Your task to perform on an android device: delete the emails in spam in the gmail app Image 0: 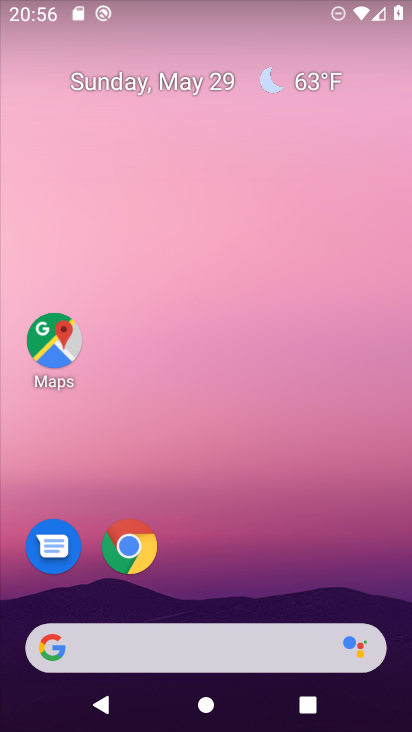
Step 0: press home button
Your task to perform on an android device: delete the emails in spam in the gmail app Image 1: 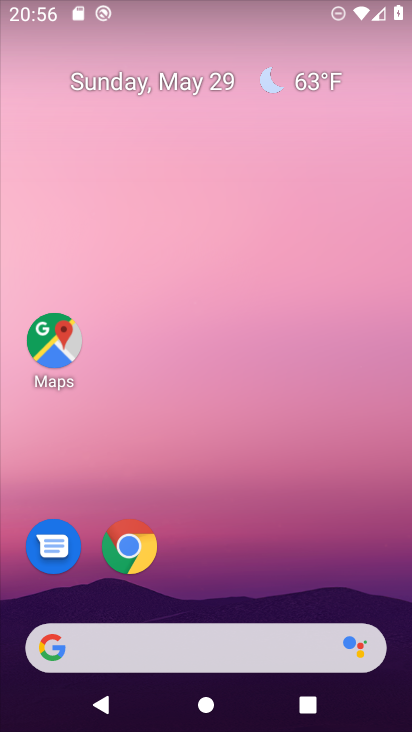
Step 1: drag from (177, 629) to (226, 9)
Your task to perform on an android device: delete the emails in spam in the gmail app Image 2: 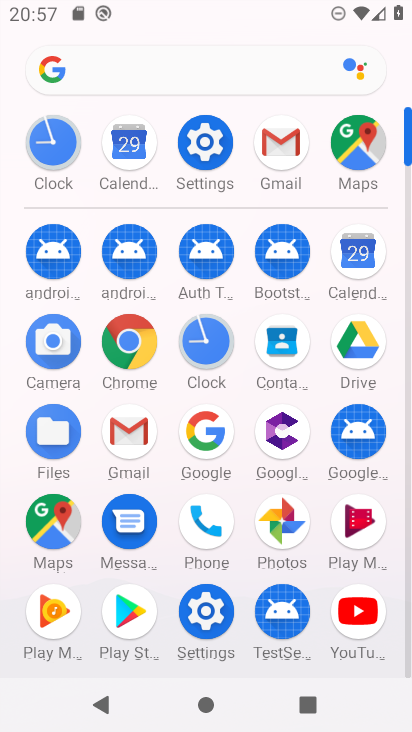
Step 2: click (276, 159)
Your task to perform on an android device: delete the emails in spam in the gmail app Image 3: 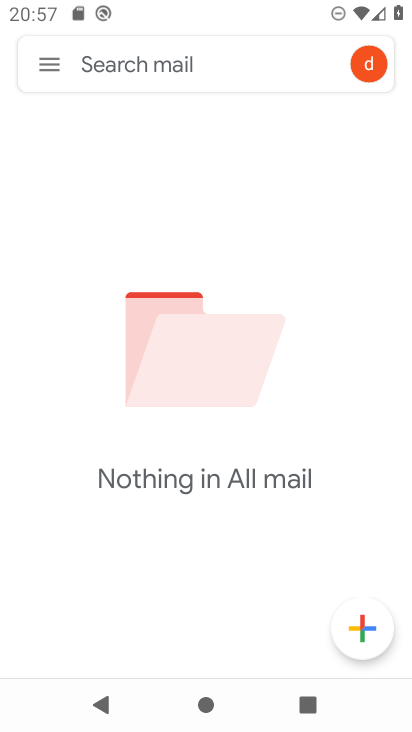
Step 3: click (58, 67)
Your task to perform on an android device: delete the emails in spam in the gmail app Image 4: 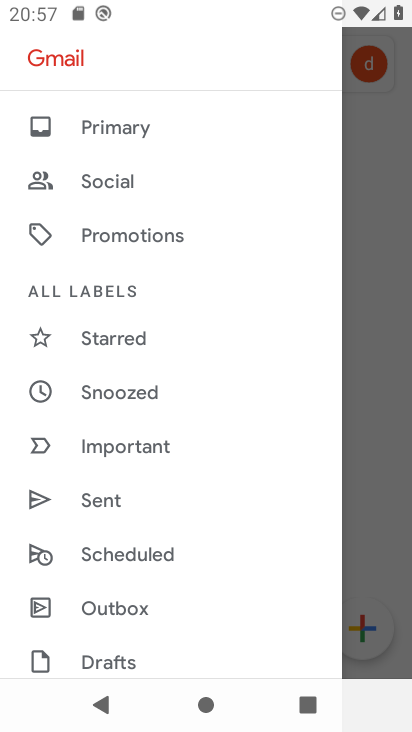
Step 4: drag from (226, 463) to (270, 146)
Your task to perform on an android device: delete the emails in spam in the gmail app Image 5: 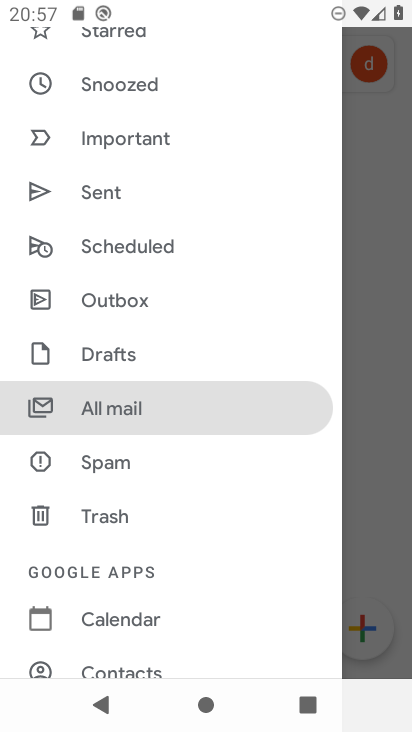
Step 5: click (127, 457)
Your task to perform on an android device: delete the emails in spam in the gmail app Image 6: 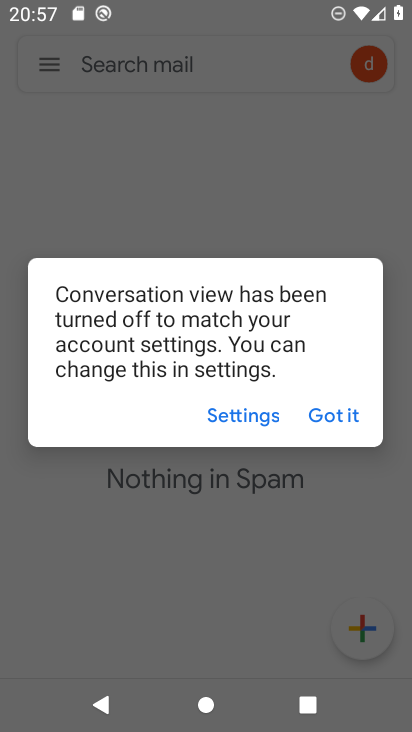
Step 6: click (330, 414)
Your task to perform on an android device: delete the emails in spam in the gmail app Image 7: 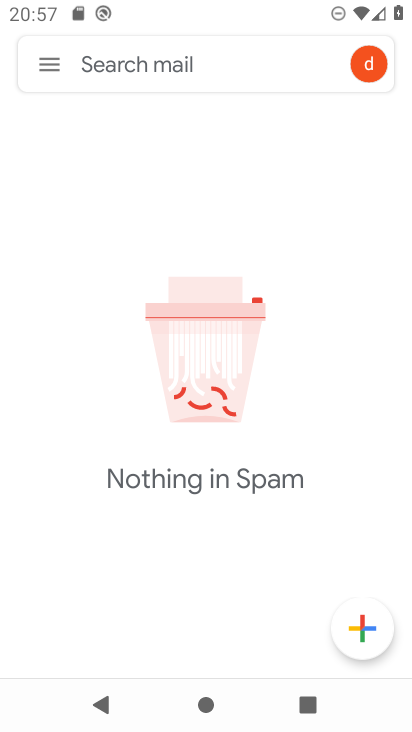
Step 7: task complete